Your task to perform on an android device: Open network settings Image 0: 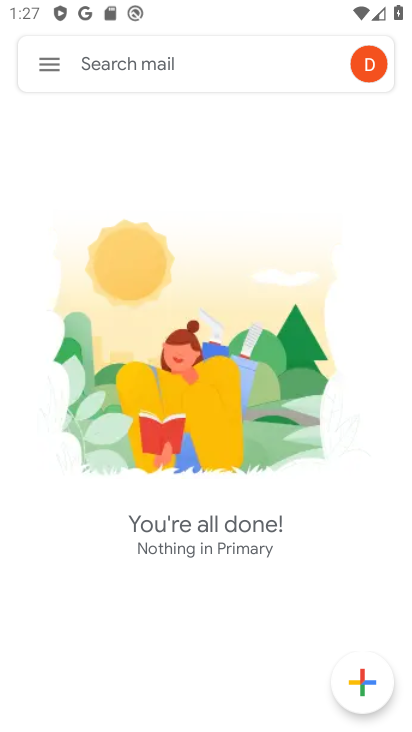
Step 0: press back button
Your task to perform on an android device: Open network settings Image 1: 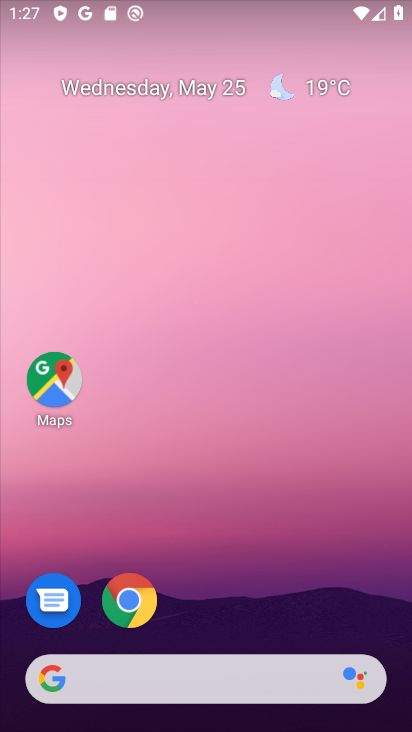
Step 1: drag from (237, 648) to (298, 130)
Your task to perform on an android device: Open network settings Image 2: 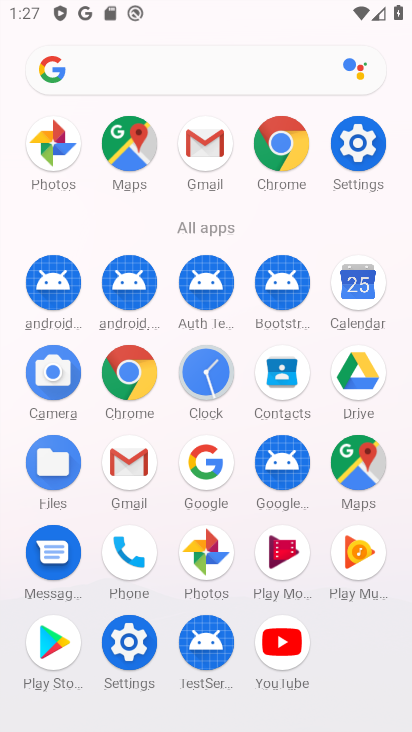
Step 2: click (131, 653)
Your task to perform on an android device: Open network settings Image 3: 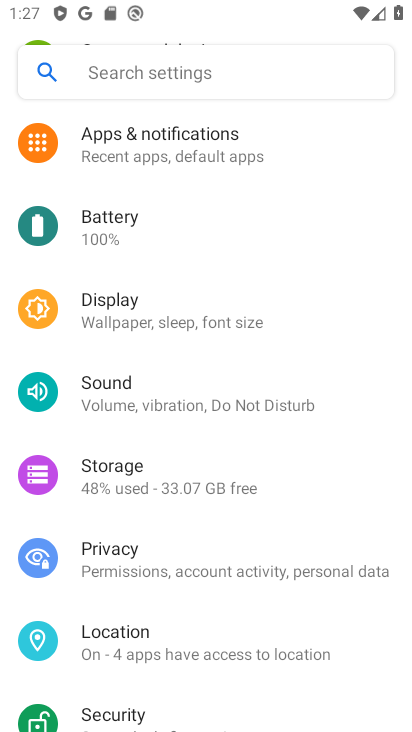
Step 3: drag from (258, 192) to (241, 497)
Your task to perform on an android device: Open network settings Image 4: 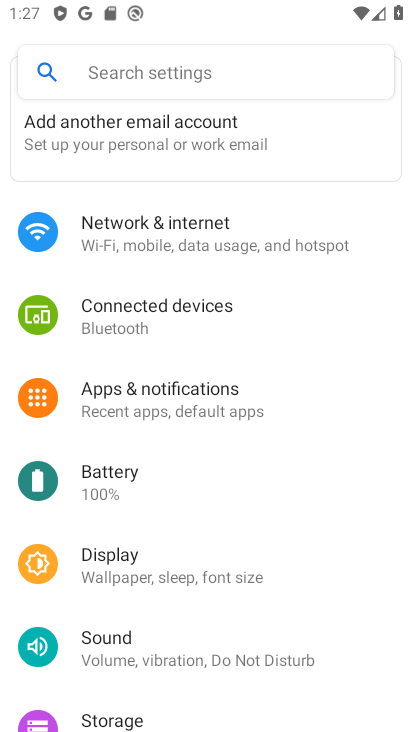
Step 4: click (224, 260)
Your task to perform on an android device: Open network settings Image 5: 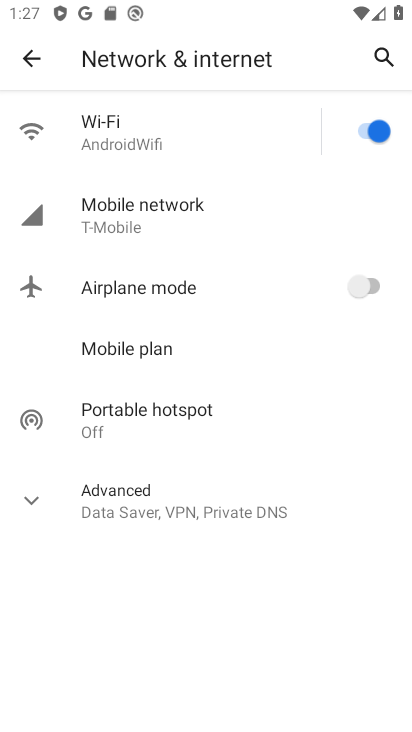
Step 5: click (171, 226)
Your task to perform on an android device: Open network settings Image 6: 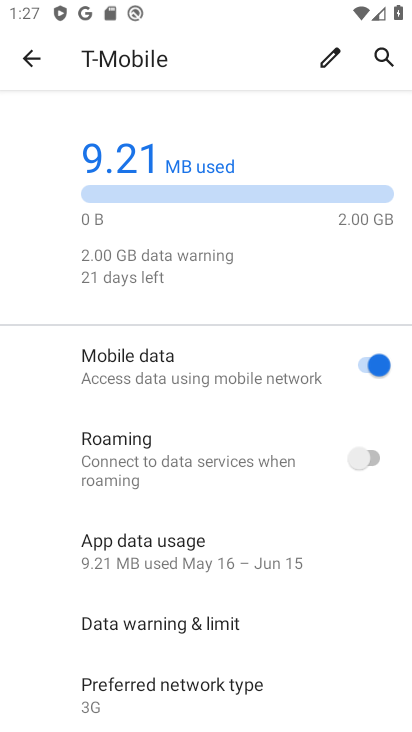
Step 6: task complete